Your task to perform on an android device: find photos in the google photos app Image 0: 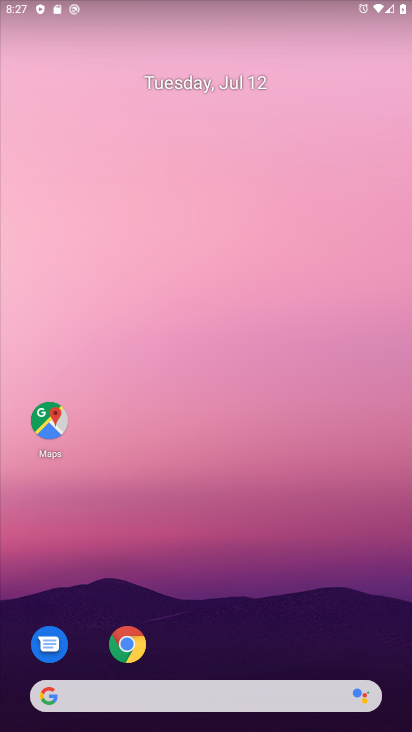
Step 0: drag from (43, 697) to (270, 140)
Your task to perform on an android device: find photos in the google photos app Image 1: 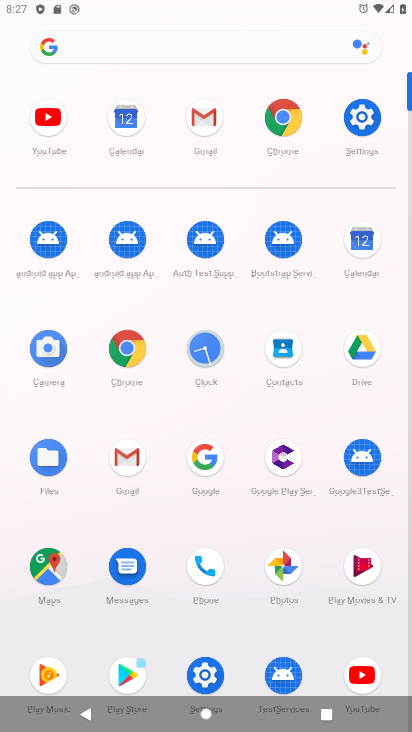
Step 1: click (300, 577)
Your task to perform on an android device: find photos in the google photos app Image 2: 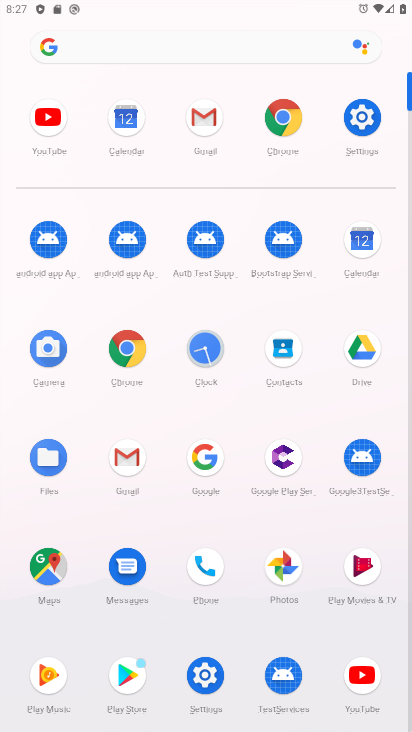
Step 2: click (295, 576)
Your task to perform on an android device: find photos in the google photos app Image 3: 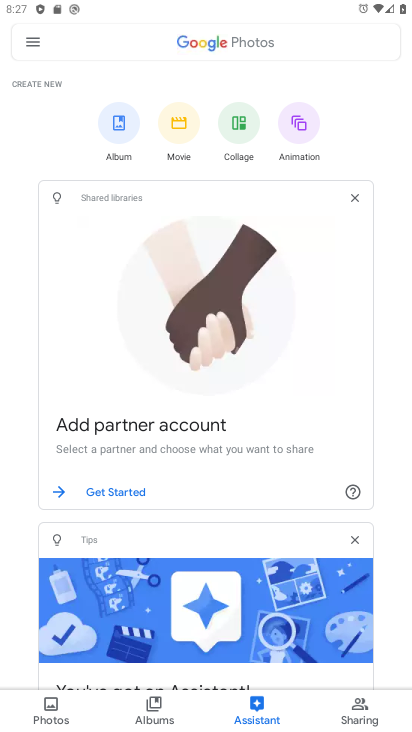
Step 3: click (43, 722)
Your task to perform on an android device: find photos in the google photos app Image 4: 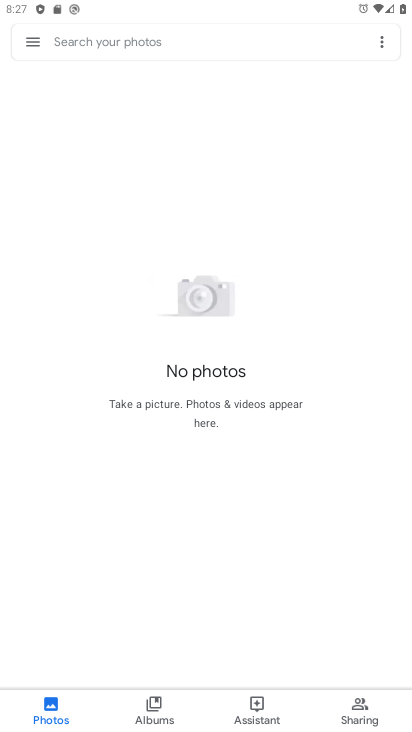
Step 4: task complete